Your task to perform on an android device: Open the map Image 0: 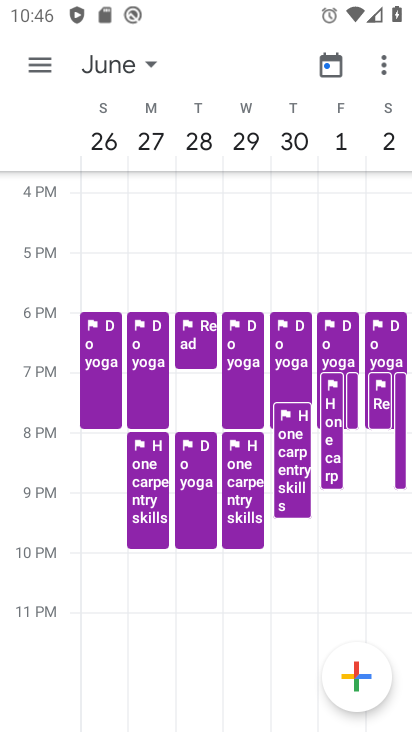
Step 0: press home button
Your task to perform on an android device: Open the map Image 1: 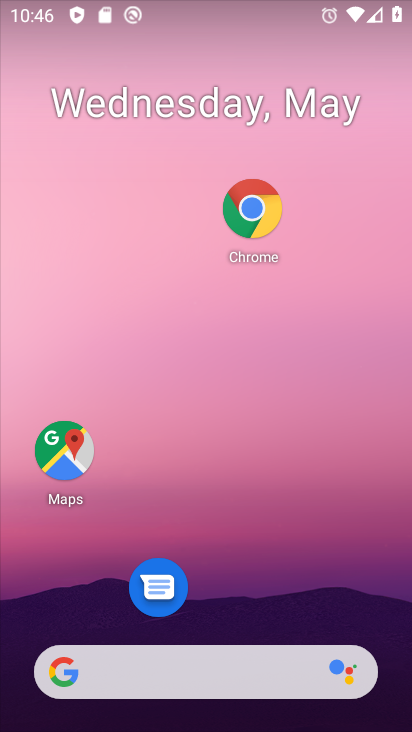
Step 1: click (68, 459)
Your task to perform on an android device: Open the map Image 2: 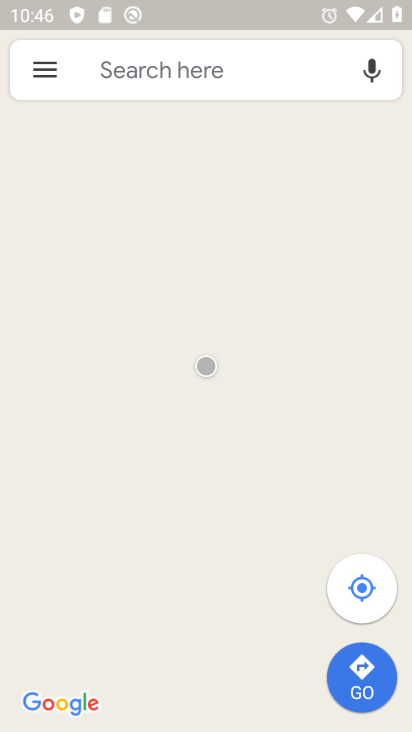
Step 2: task complete